Your task to perform on an android device: Open Yahoo.com Image 0: 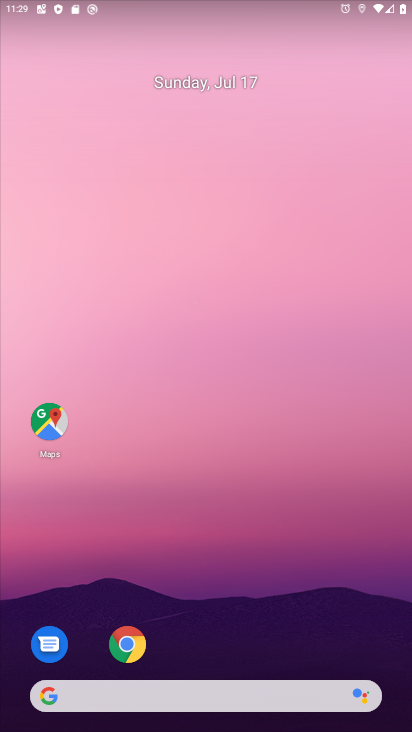
Step 0: drag from (268, 458) to (273, 91)
Your task to perform on an android device: Open Yahoo.com Image 1: 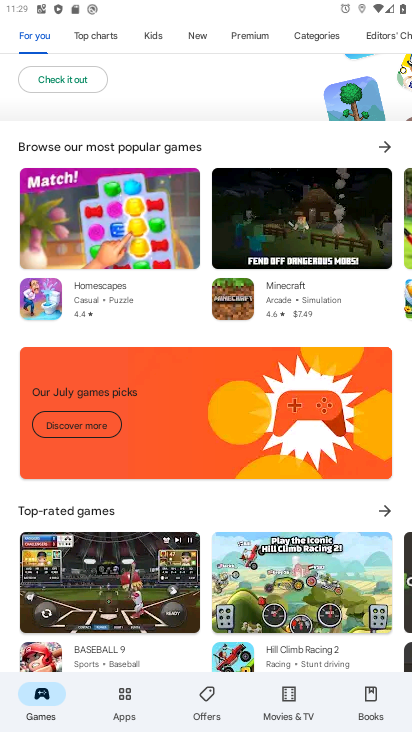
Step 1: press home button
Your task to perform on an android device: Open Yahoo.com Image 2: 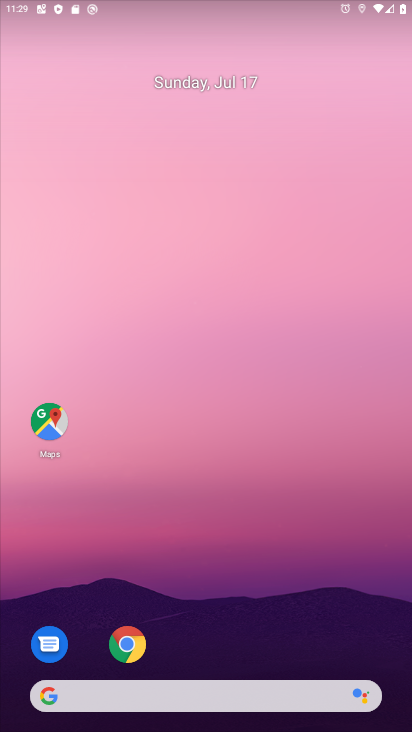
Step 2: drag from (290, 620) to (249, 134)
Your task to perform on an android device: Open Yahoo.com Image 3: 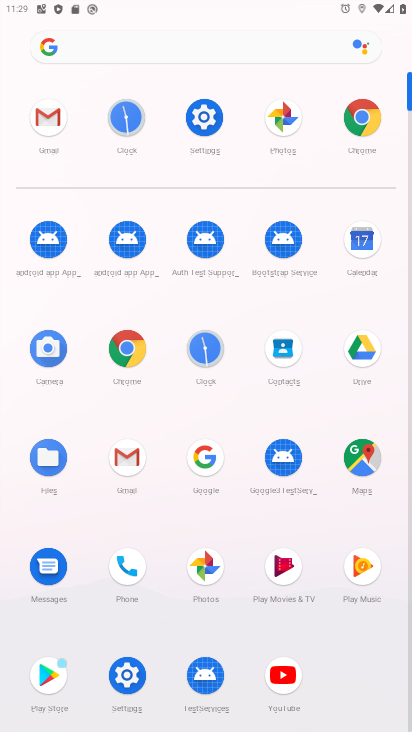
Step 3: click (366, 121)
Your task to perform on an android device: Open Yahoo.com Image 4: 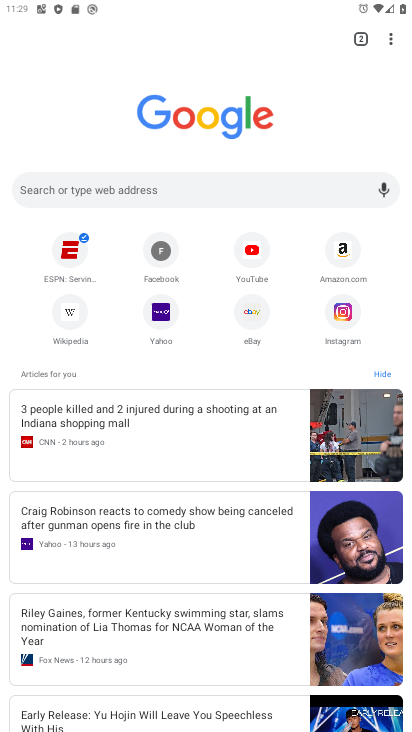
Step 4: click (166, 314)
Your task to perform on an android device: Open Yahoo.com Image 5: 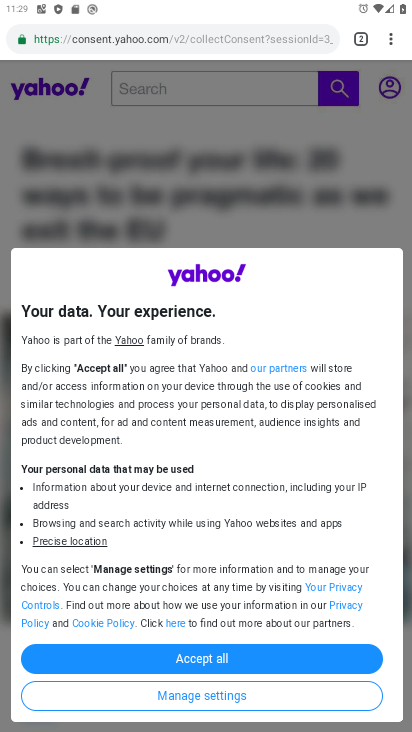
Step 5: task complete